Your task to perform on an android device: toggle show notifications on the lock screen Image 0: 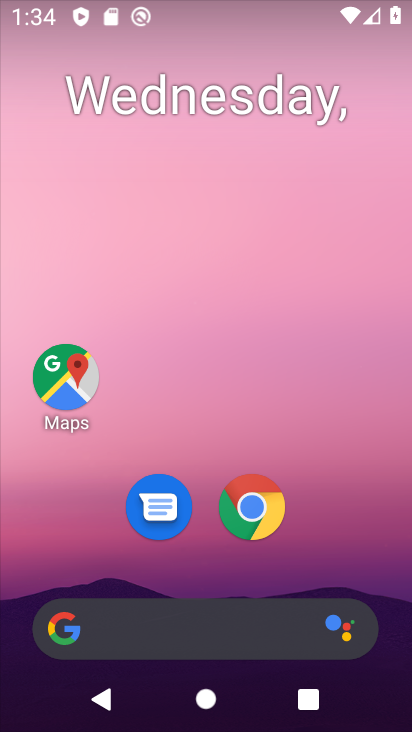
Step 0: drag from (379, 359) to (361, 201)
Your task to perform on an android device: toggle show notifications on the lock screen Image 1: 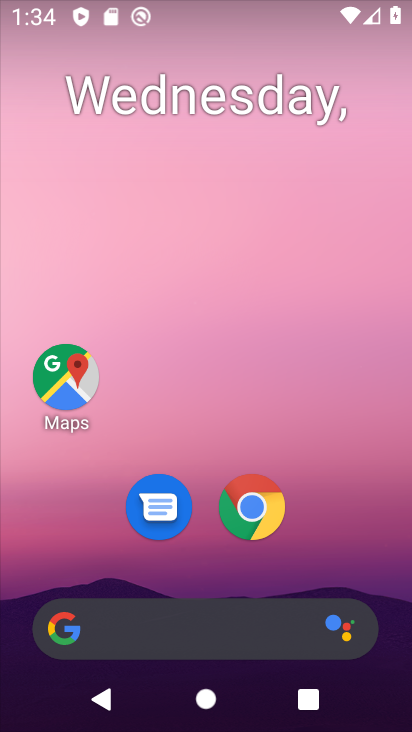
Step 1: drag from (399, 659) to (382, 191)
Your task to perform on an android device: toggle show notifications on the lock screen Image 2: 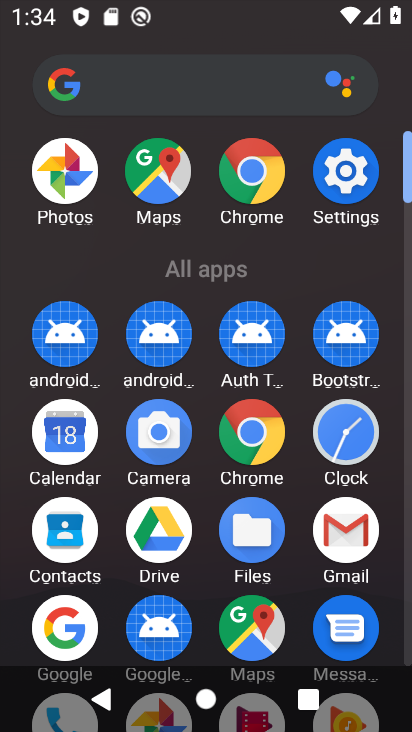
Step 2: click (343, 163)
Your task to perform on an android device: toggle show notifications on the lock screen Image 3: 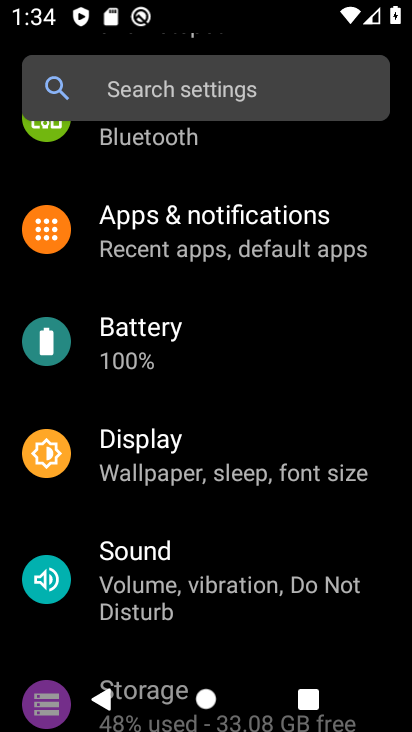
Step 3: click (163, 225)
Your task to perform on an android device: toggle show notifications on the lock screen Image 4: 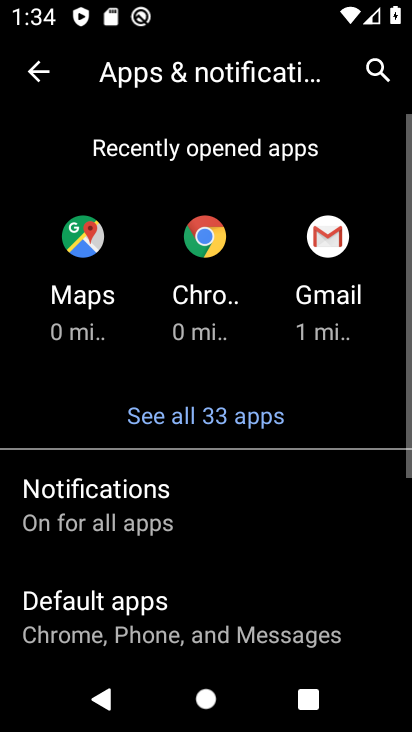
Step 4: drag from (268, 547) to (249, 356)
Your task to perform on an android device: toggle show notifications on the lock screen Image 5: 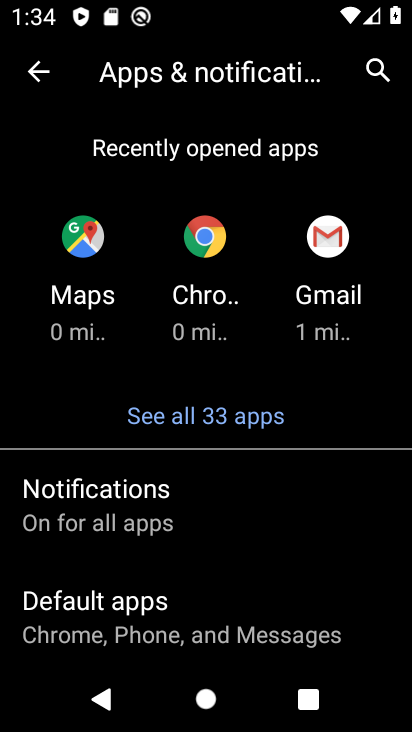
Step 5: drag from (269, 613) to (239, 195)
Your task to perform on an android device: toggle show notifications on the lock screen Image 6: 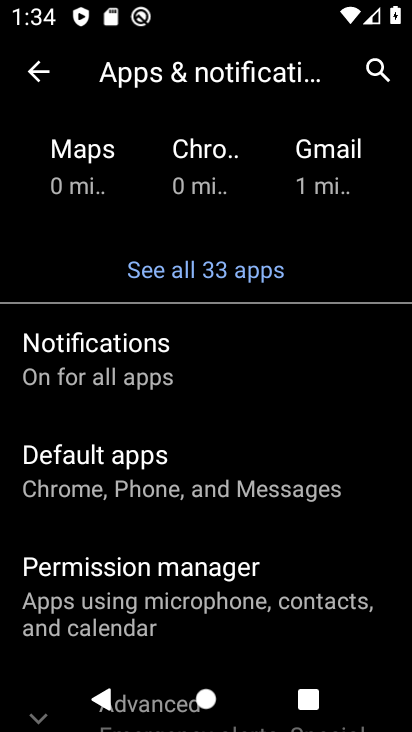
Step 6: drag from (240, 686) to (259, 394)
Your task to perform on an android device: toggle show notifications on the lock screen Image 7: 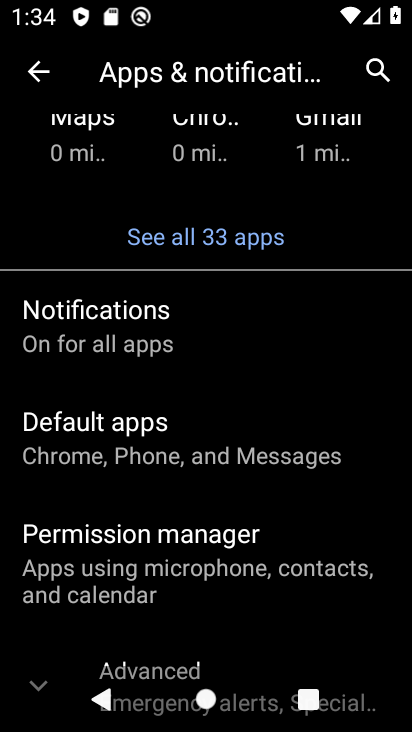
Step 7: click (108, 312)
Your task to perform on an android device: toggle show notifications on the lock screen Image 8: 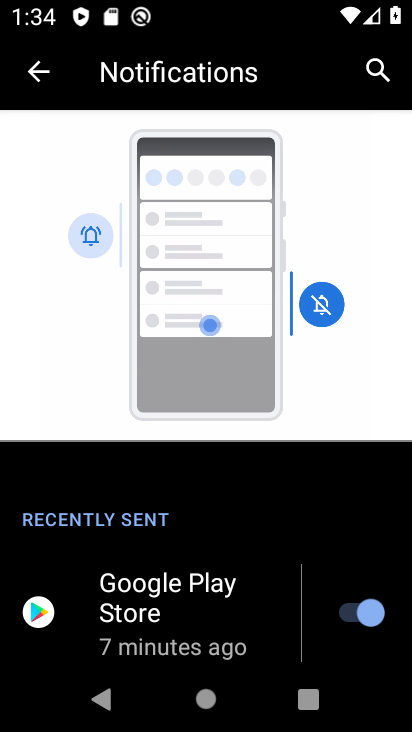
Step 8: drag from (260, 621) to (249, 251)
Your task to perform on an android device: toggle show notifications on the lock screen Image 9: 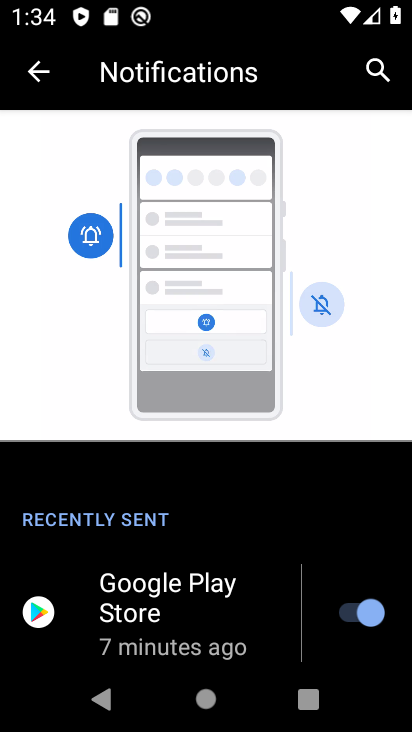
Step 9: drag from (270, 646) to (267, 284)
Your task to perform on an android device: toggle show notifications on the lock screen Image 10: 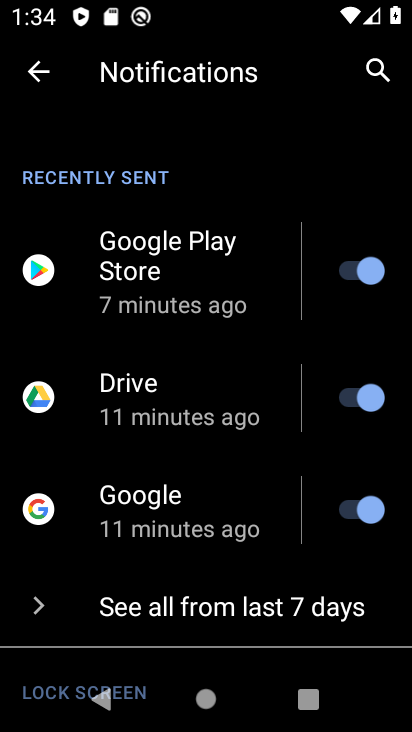
Step 10: drag from (259, 670) to (288, 339)
Your task to perform on an android device: toggle show notifications on the lock screen Image 11: 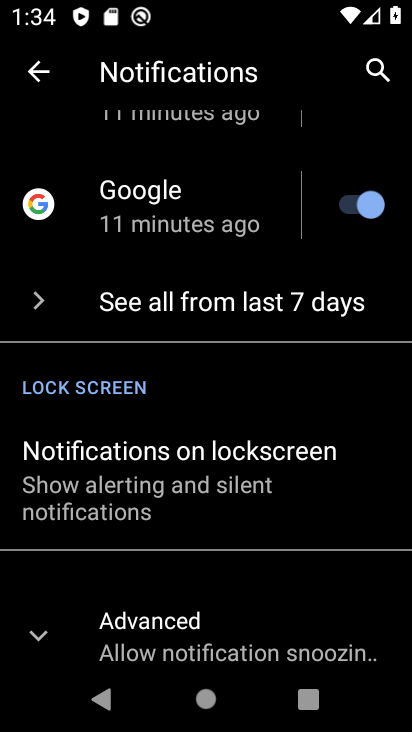
Step 11: click (136, 452)
Your task to perform on an android device: toggle show notifications on the lock screen Image 12: 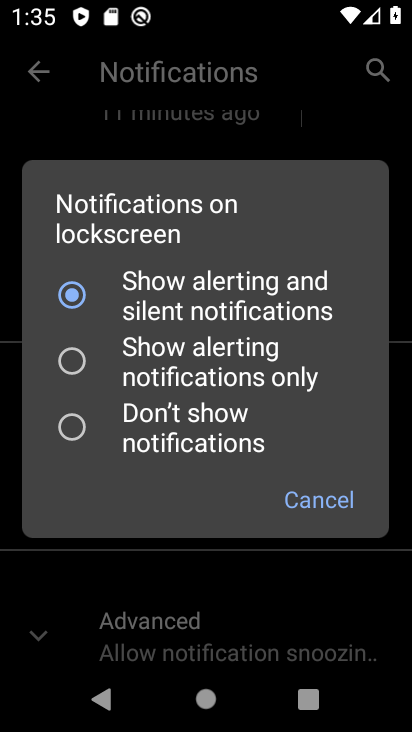
Step 12: click (71, 374)
Your task to perform on an android device: toggle show notifications on the lock screen Image 13: 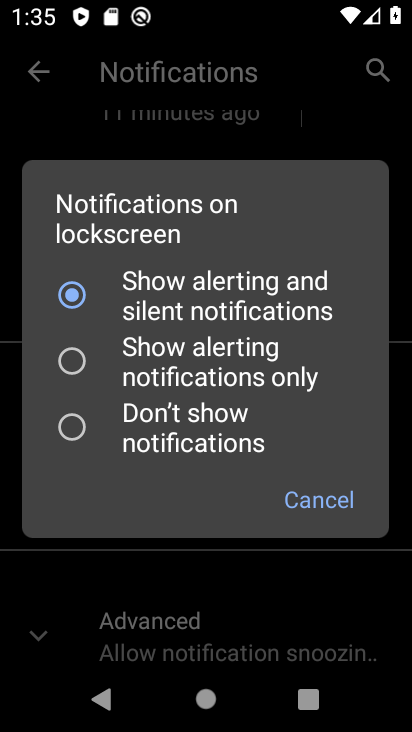
Step 13: click (69, 366)
Your task to perform on an android device: toggle show notifications on the lock screen Image 14: 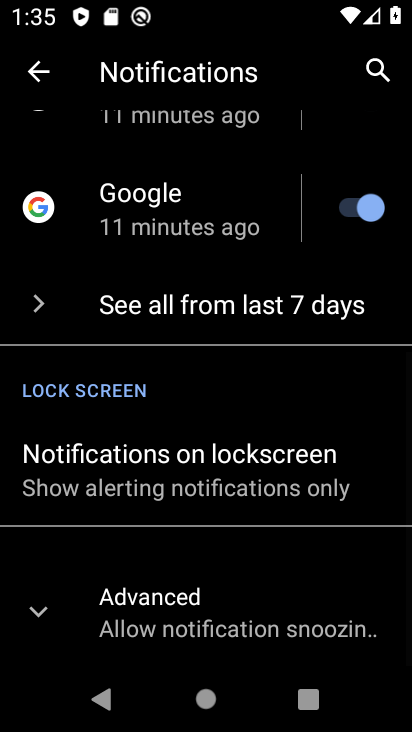
Step 14: task complete